Your task to perform on an android device: What's the weather going to be this weekend? Image 0: 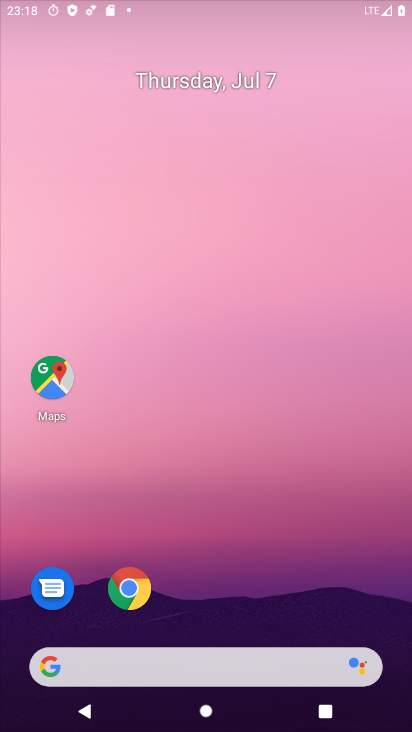
Step 0: drag from (263, 534) to (283, 95)
Your task to perform on an android device: What's the weather going to be this weekend? Image 1: 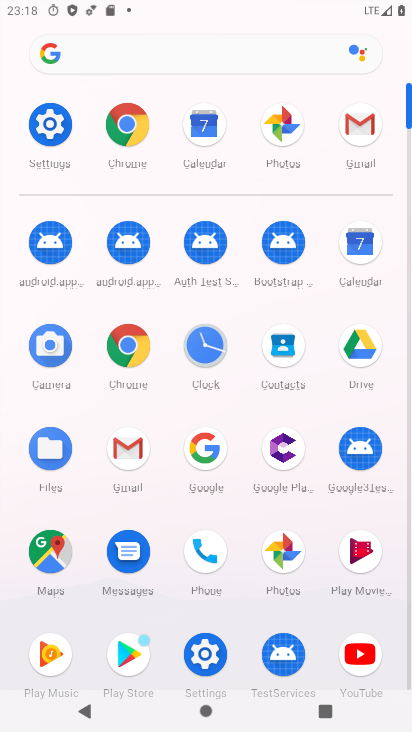
Step 1: click (128, 128)
Your task to perform on an android device: What's the weather going to be this weekend? Image 2: 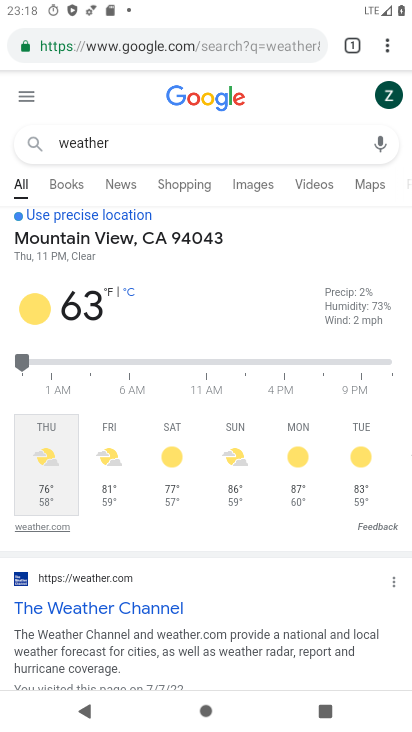
Step 2: click (170, 459)
Your task to perform on an android device: What's the weather going to be this weekend? Image 3: 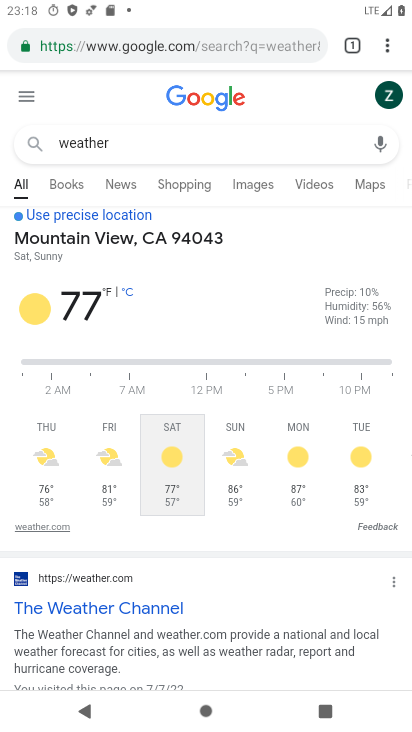
Step 3: task complete